Your task to perform on an android device: Open Reddit.com Image 0: 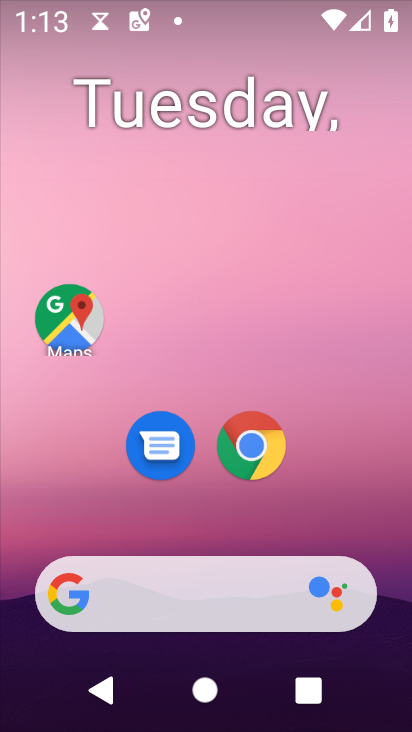
Step 0: drag from (272, 599) to (258, 70)
Your task to perform on an android device: Open Reddit.com Image 1: 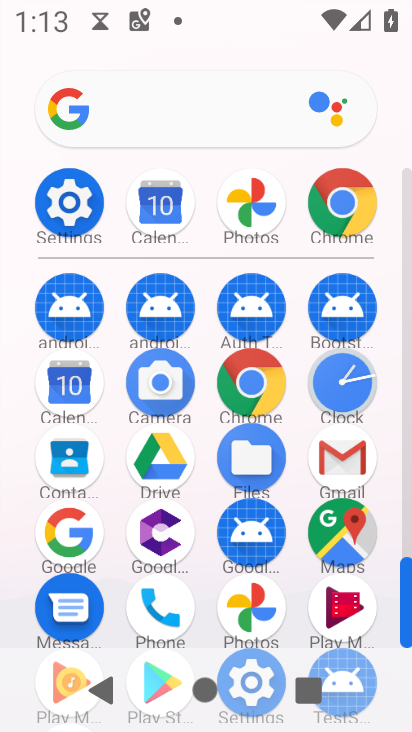
Step 1: click (247, 378)
Your task to perform on an android device: Open Reddit.com Image 2: 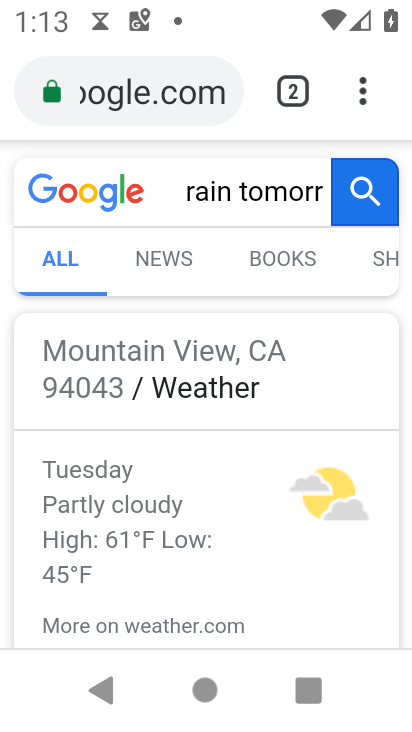
Step 2: click (206, 97)
Your task to perform on an android device: Open Reddit.com Image 3: 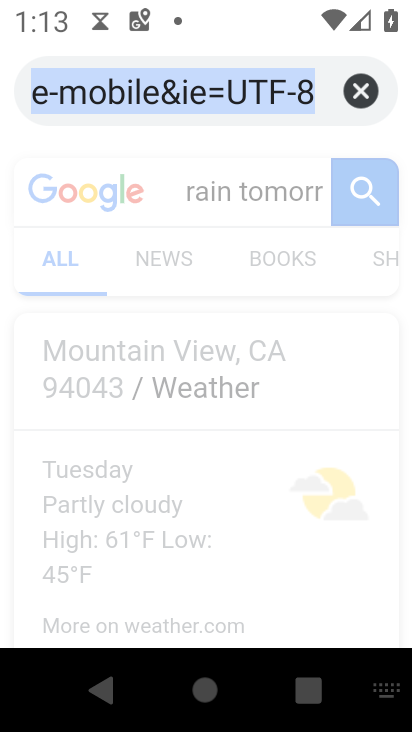
Step 3: click (360, 90)
Your task to perform on an android device: Open Reddit.com Image 4: 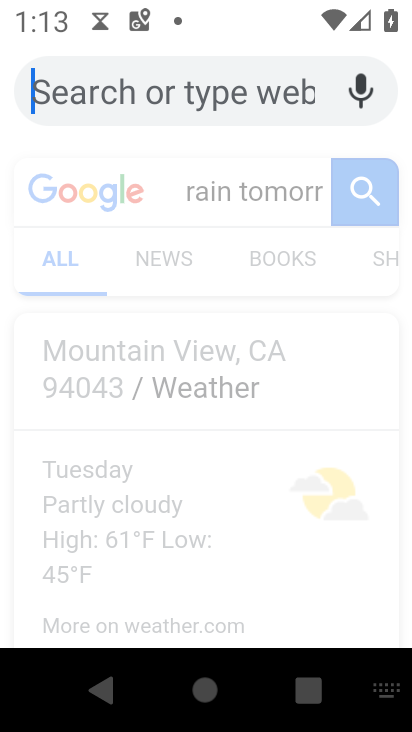
Step 4: type "reddit.com"
Your task to perform on an android device: Open Reddit.com Image 5: 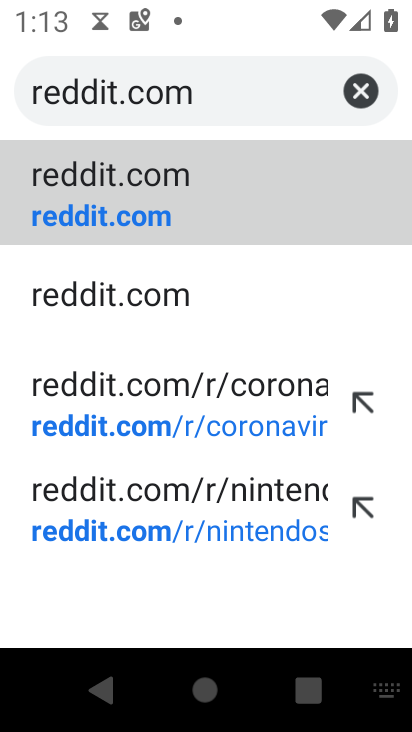
Step 5: click (216, 212)
Your task to perform on an android device: Open Reddit.com Image 6: 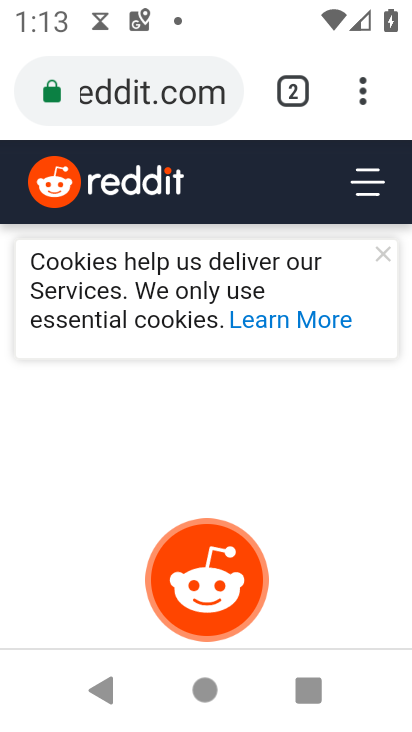
Step 6: task complete